Your task to perform on an android device: turn off notifications settings in the gmail app Image 0: 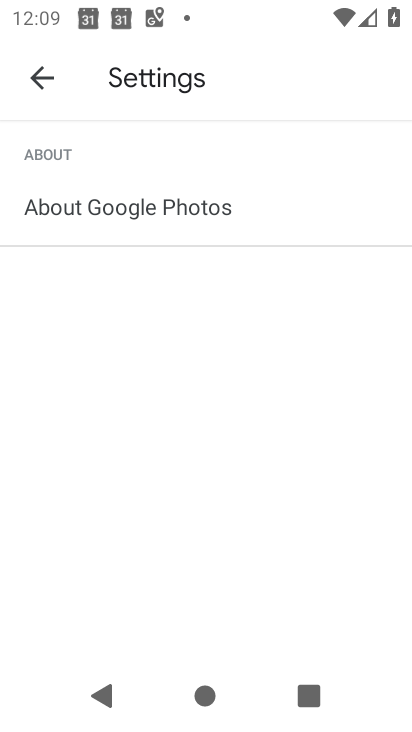
Step 0: press home button
Your task to perform on an android device: turn off notifications settings in the gmail app Image 1: 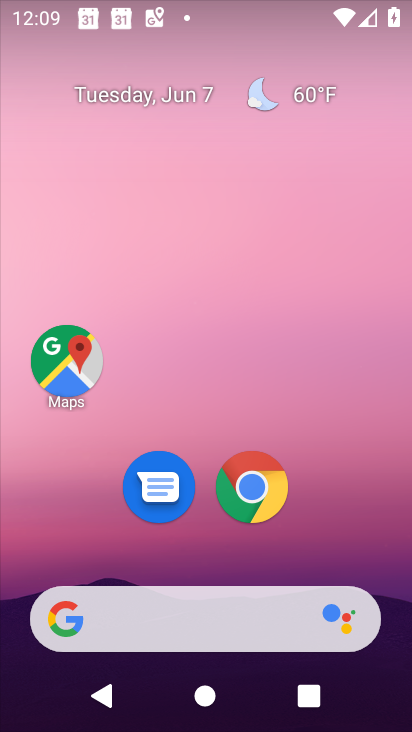
Step 1: drag from (379, 554) to (292, 79)
Your task to perform on an android device: turn off notifications settings in the gmail app Image 2: 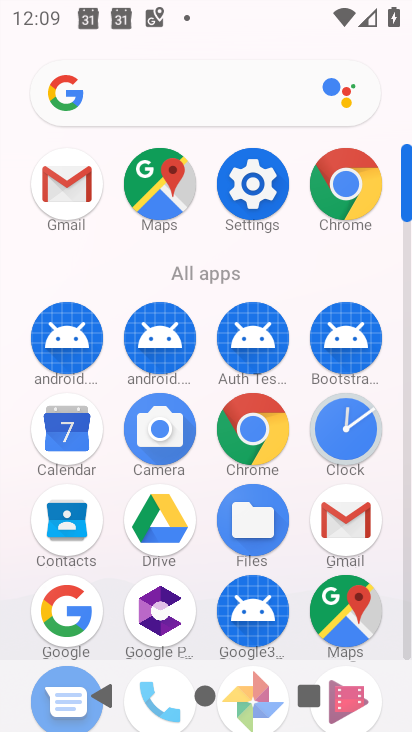
Step 2: click (69, 202)
Your task to perform on an android device: turn off notifications settings in the gmail app Image 3: 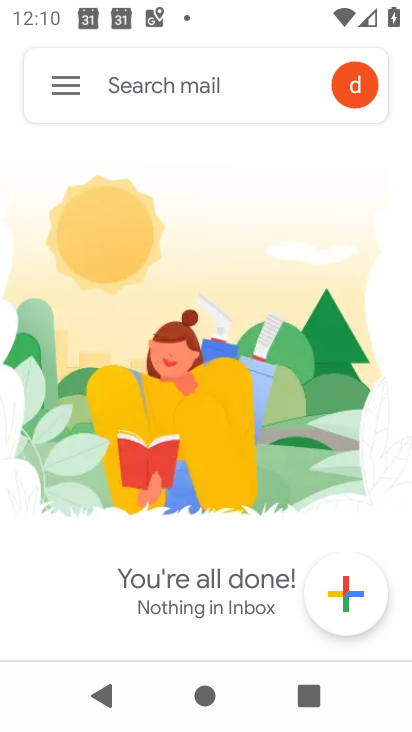
Step 3: click (62, 96)
Your task to perform on an android device: turn off notifications settings in the gmail app Image 4: 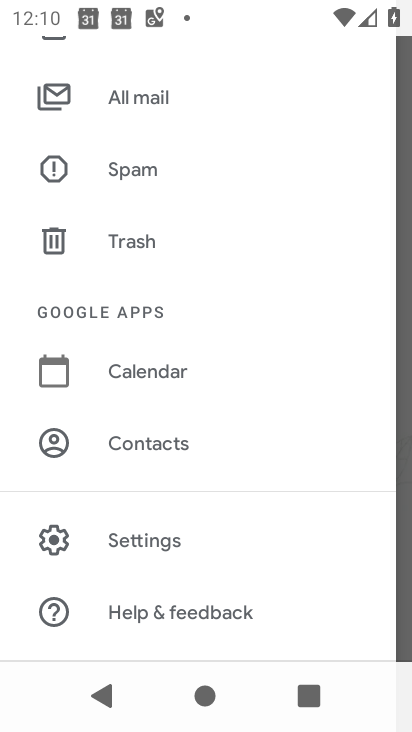
Step 4: click (215, 532)
Your task to perform on an android device: turn off notifications settings in the gmail app Image 5: 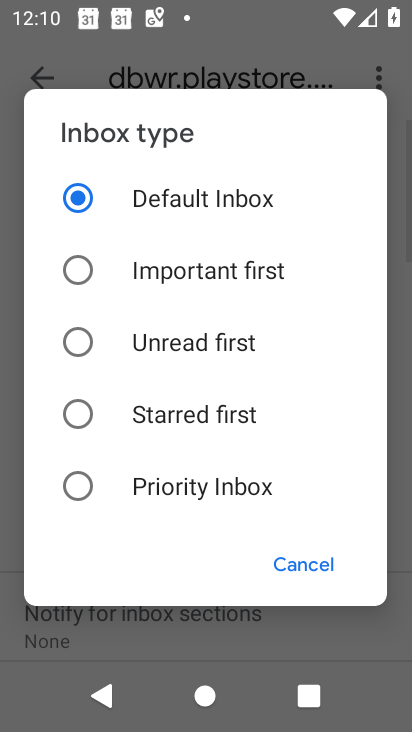
Step 5: click (306, 570)
Your task to perform on an android device: turn off notifications settings in the gmail app Image 6: 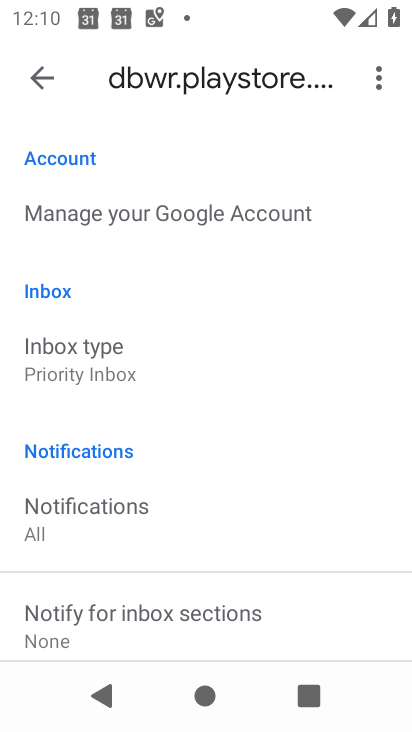
Step 6: drag from (215, 600) to (152, 0)
Your task to perform on an android device: turn off notifications settings in the gmail app Image 7: 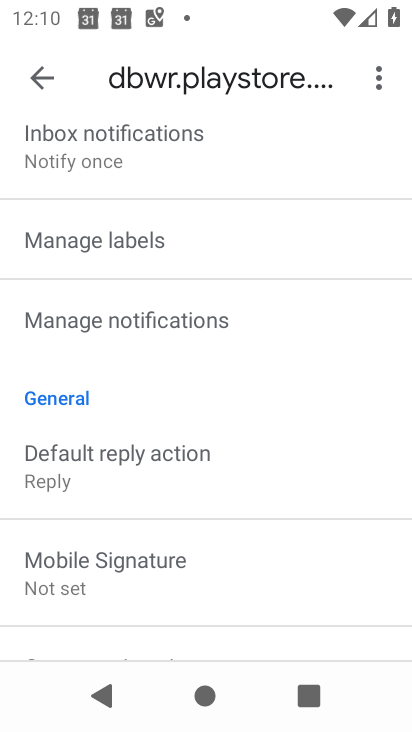
Step 7: click (163, 326)
Your task to perform on an android device: turn off notifications settings in the gmail app Image 8: 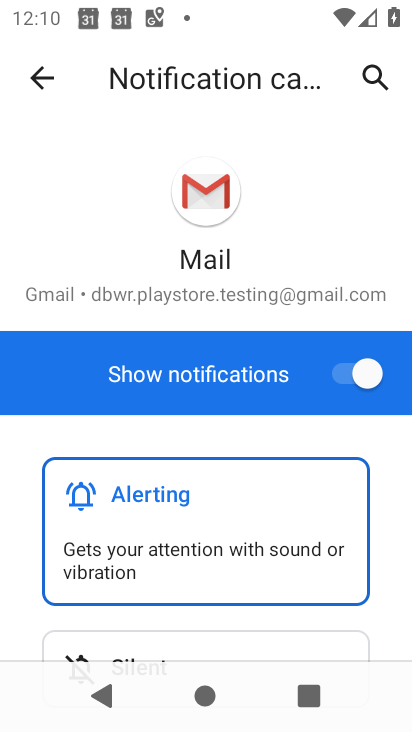
Step 8: task complete